Your task to perform on an android device: Go to Android settings Image 0: 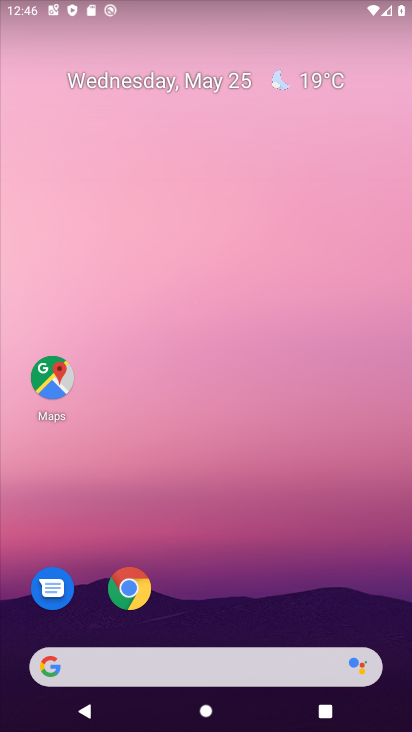
Step 0: drag from (176, 587) to (232, 140)
Your task to perform on an android device: Go to Android settings Image 1: 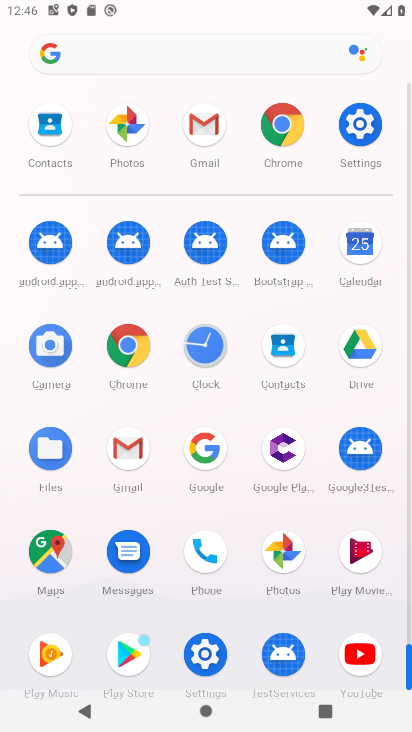
Step 1: click (209, 662)
Your task to perform on an android device: Go to Android settings Image 2: 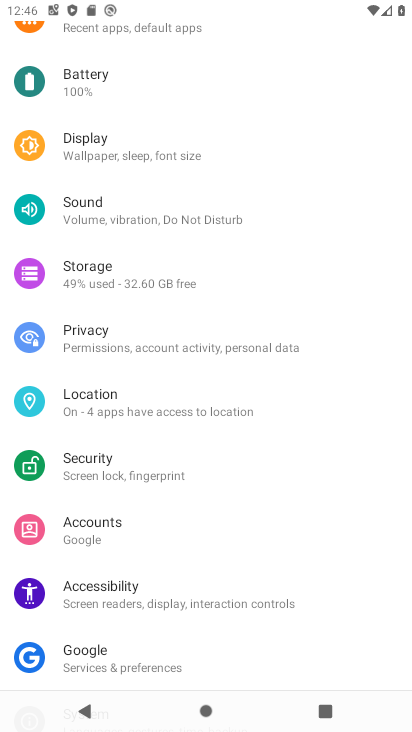
Step 2: task complete